Your task to perform on an android device: Open network settings Image 0: 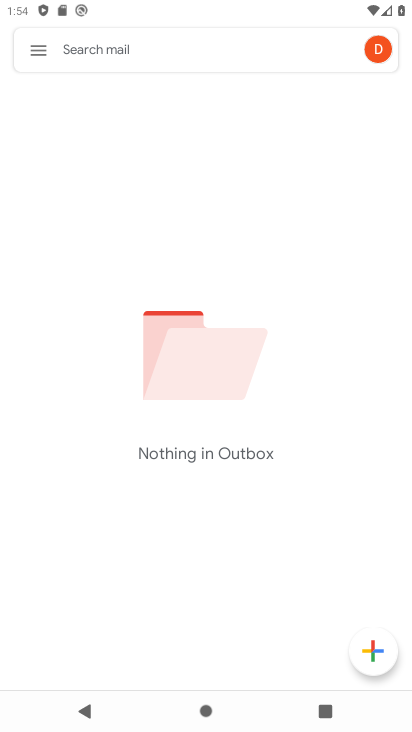
Step 0: press back button
Your task to perform on an android device: Open network settings Image 1: 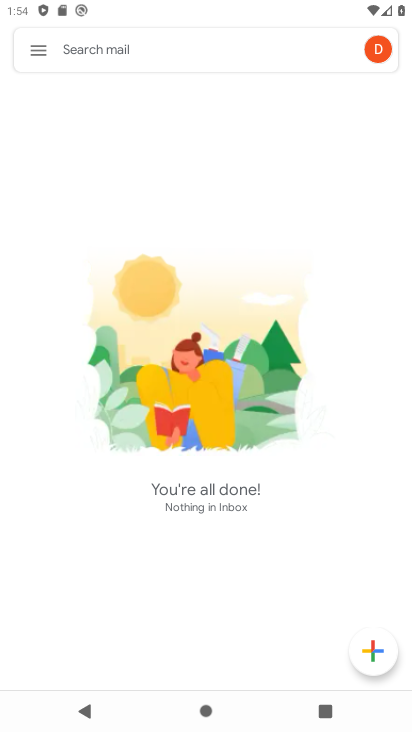
Step 1: press home button
Your task to perform on an android device: Open network settings Image 2: 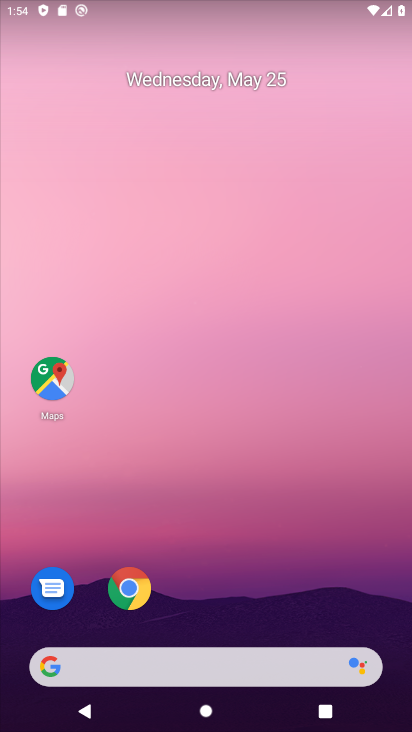
Step 2: drag from (247, 586) to (230, 40)
Your task to perform on an android device: Open network settings Image 3: 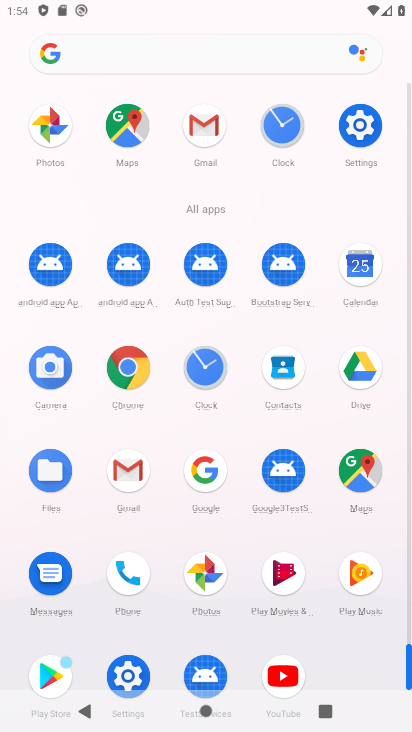
Step 3: drag from (9, 575) to (5, 328)
Your task to perform on an android device: Open network settings Image 4: 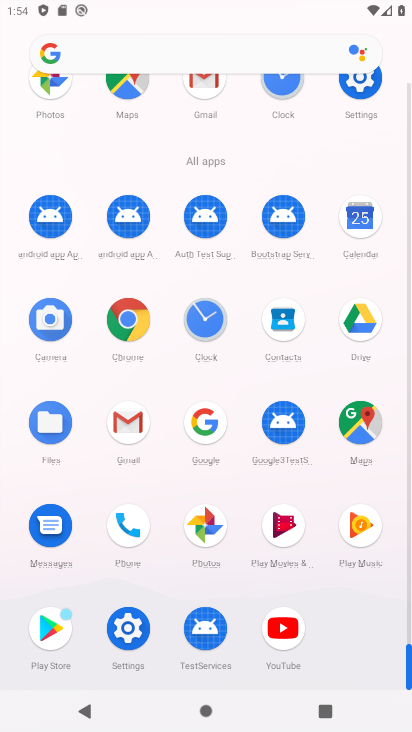
Step 4: click (127, 627)
Your task to perform on an android device: Open network settings Image 5: 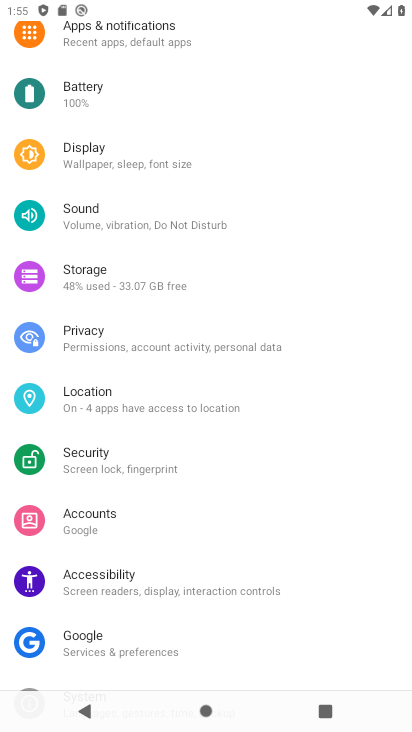
Step 5: drag from (204, 87) to (190, 366)
Your task to perform on an android device: Open network settings Image 6: 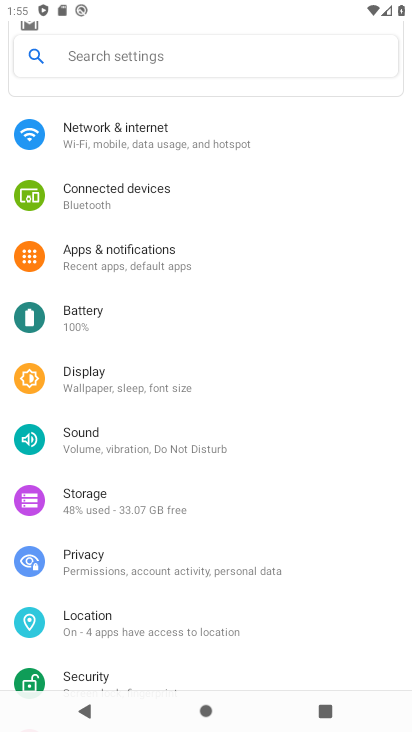
Step 6: drag from (182, 162) to (175, 363)
Your task to perform on an android device: Open network settings Image 7: 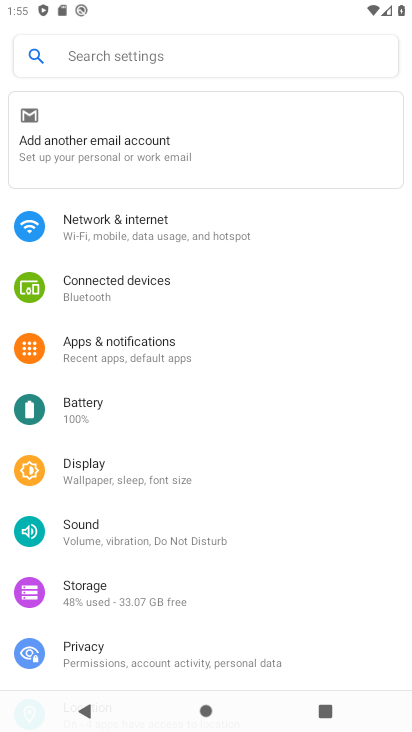
Step 7: click (165, 212)
Your task to perform on an android device: Open network settings Image 8: 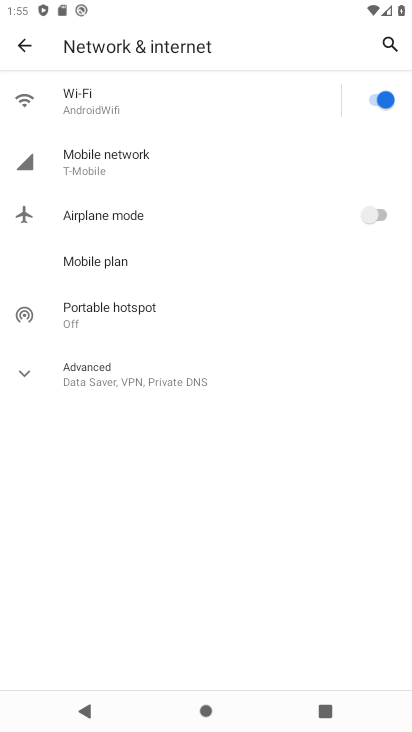
Step 8: click (18, 366)
Your task to perform on an android device: Open network settings Image 9: 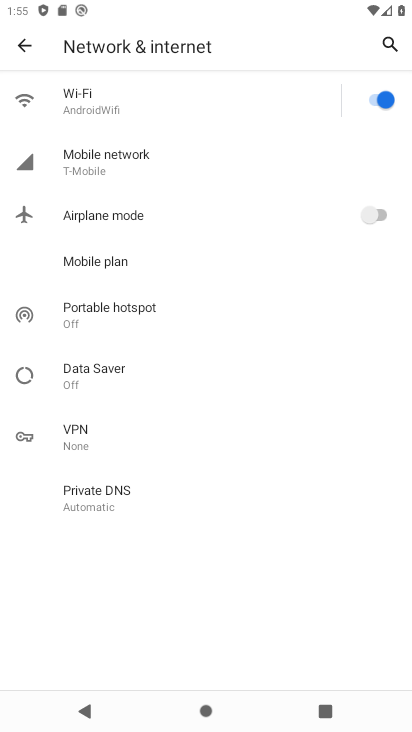
Step 9: task complete